Your task to perform on an android device: create a new album in the google photos Image 0: 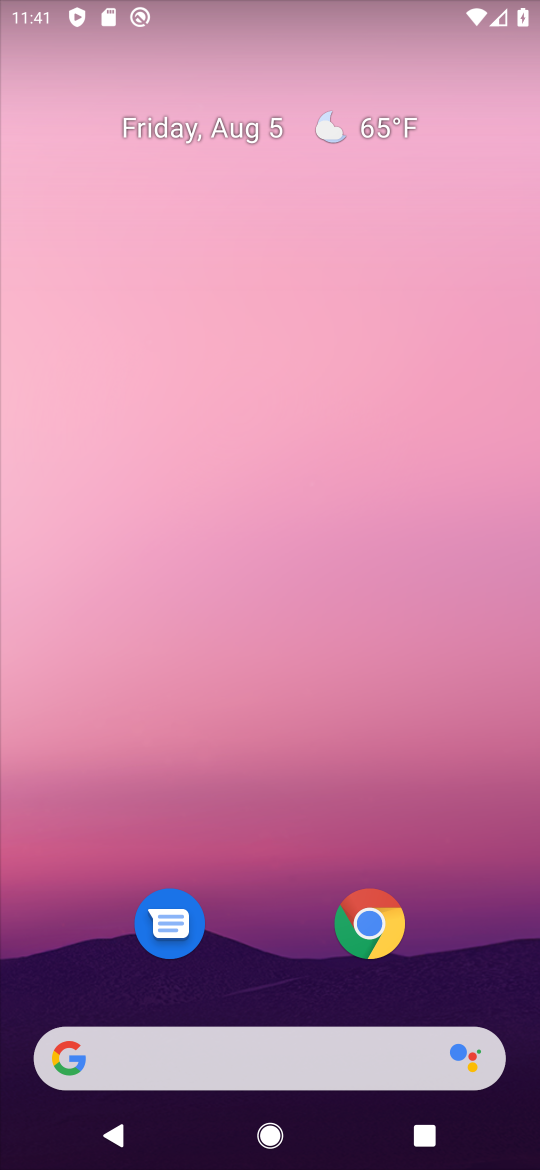
Step 0: drag from (432, 755) to (287, 271)
Your task to perform on an android device: create a new album in the google photos Image 1: 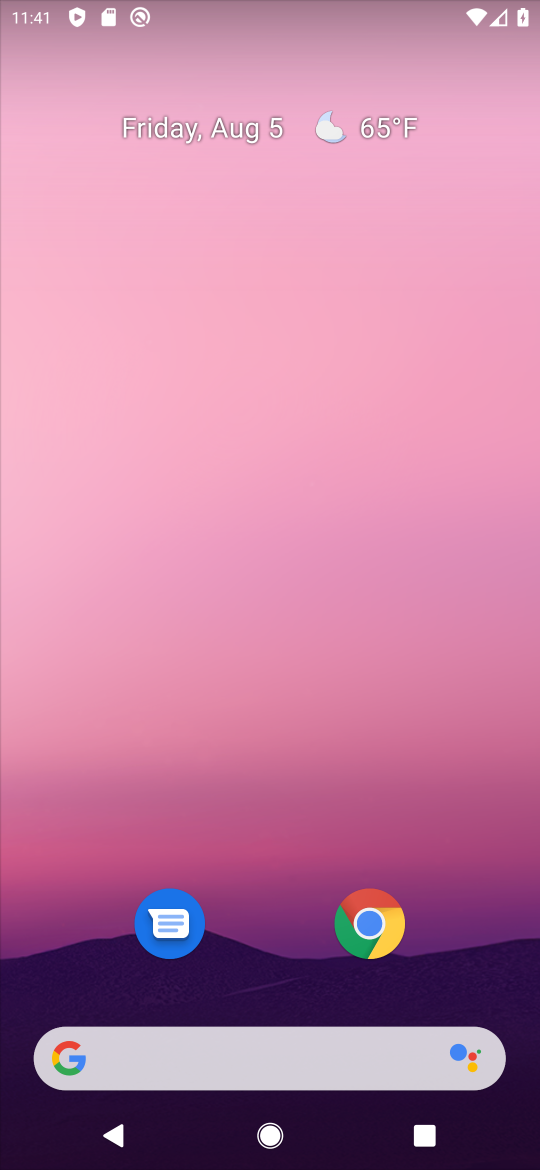
Step 1: drag from (518, 1001) to (469, 396)
Your task to perform on an android device: create a new album in the google photos Image 2: 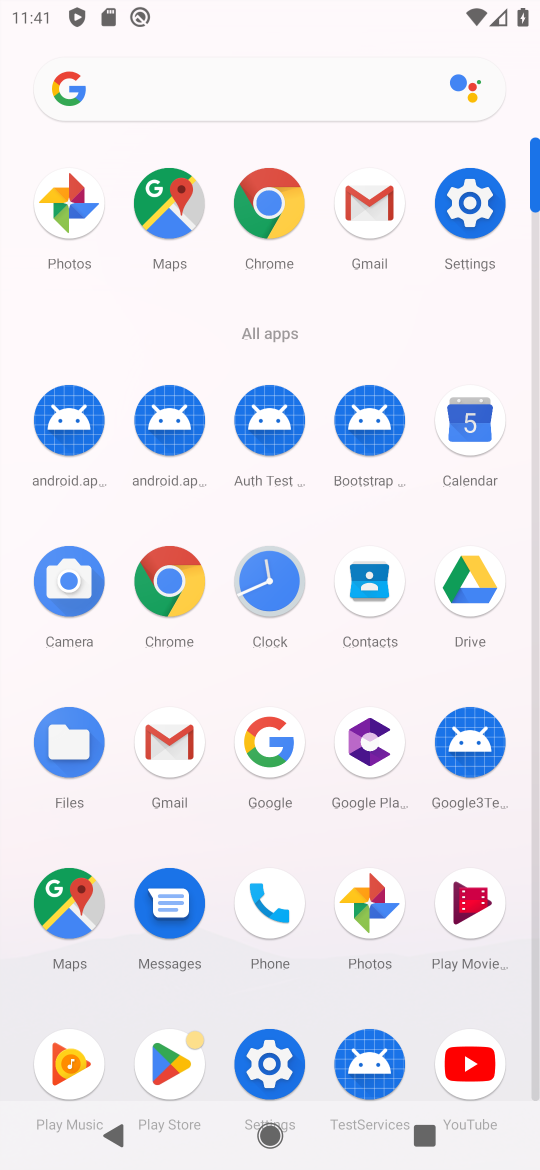
Step 2: click (61, 210)
Your task to perform on an android device: create a new album in the google photos Image 3: 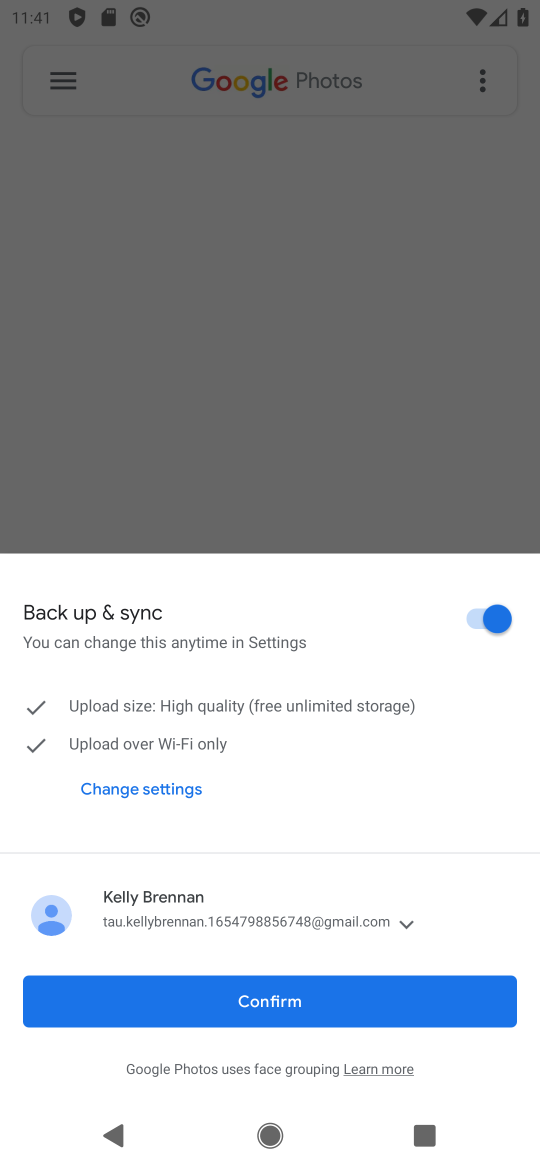
Step 3: click (351, 997)
Your task to perform on an android device: create a new album in the google photos Image 4: 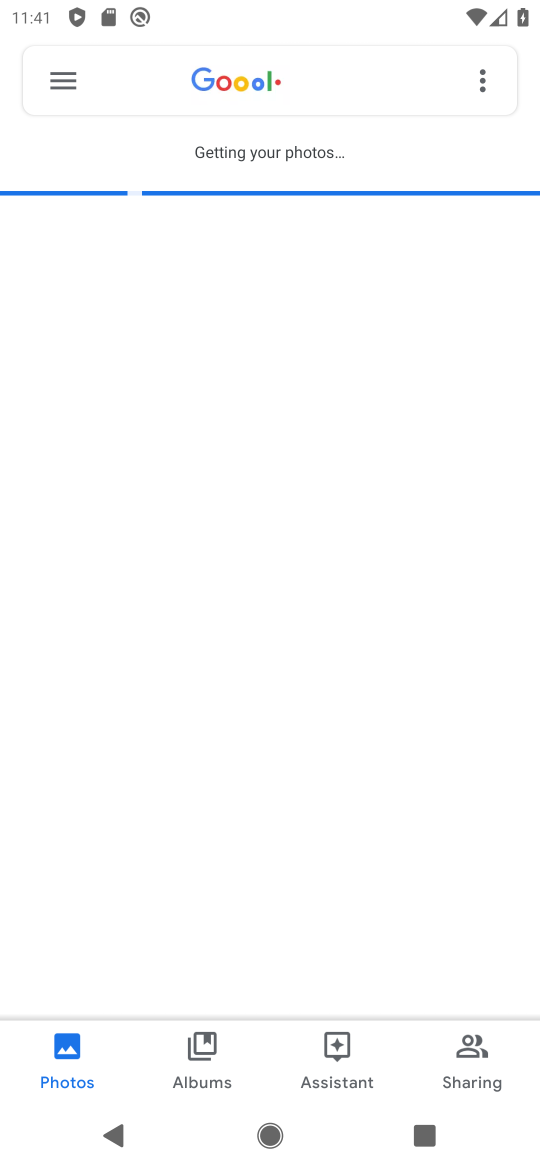
Step 4: click (337, 1053)
Your task to perform on an android device: create a new album in the google photos Image 5: 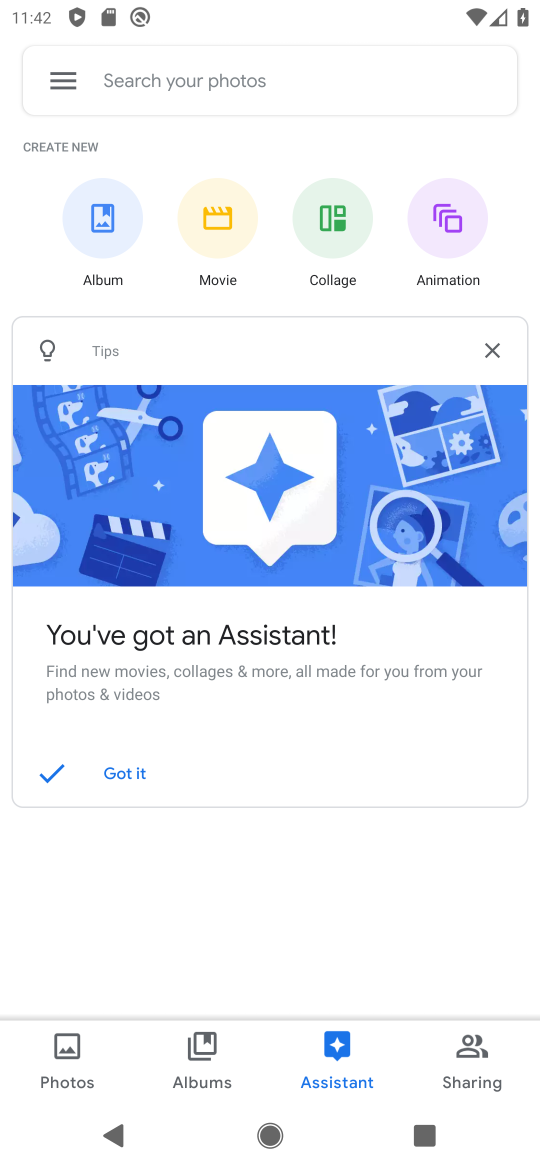
Step 5: click (96, 239)
Your task to perform on an android device: create a new album in the google photos Image 6: 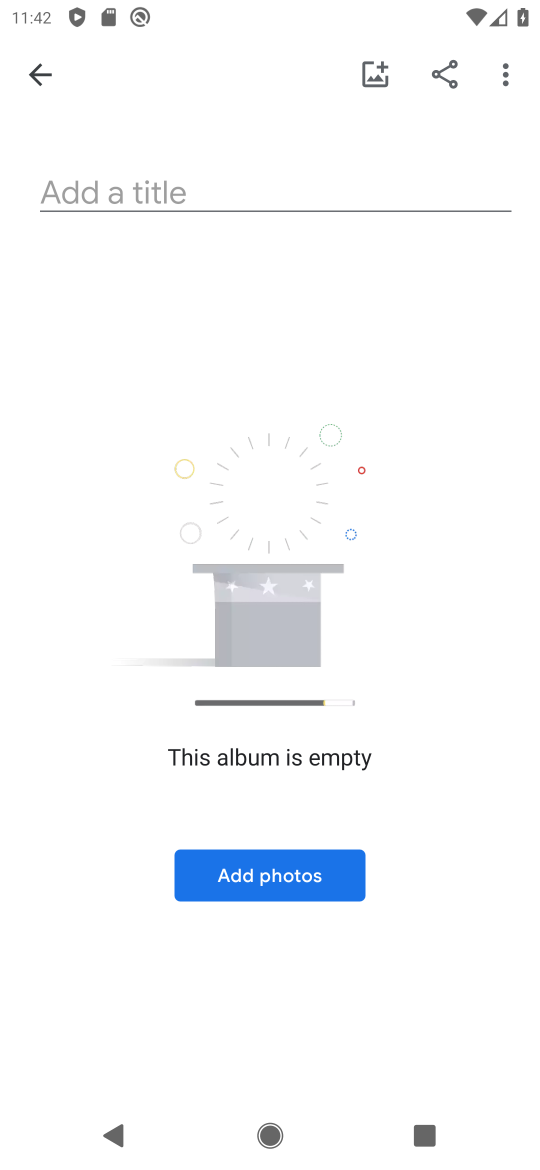
Step 6: click (323, 892)
Your task to perform on an android device: create a new album in the google photos Image 7: 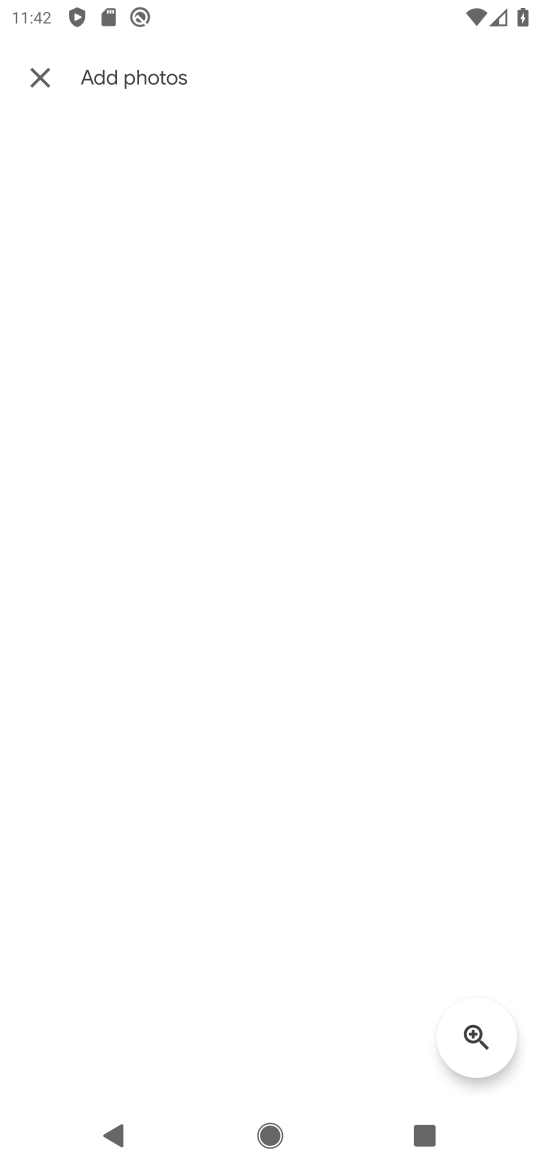
Step 7: task complete